Your task to perform on an android device: Go to Yahoo.com Image 0: 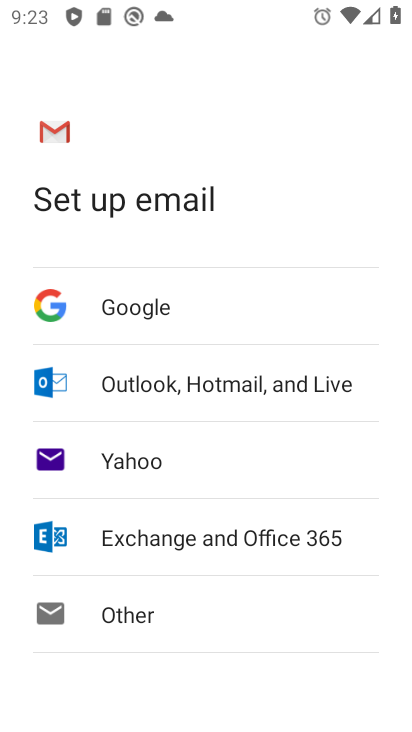
Step 0: press home button
Your task to perform on an android device: Go to Yahoo.com Image 1: 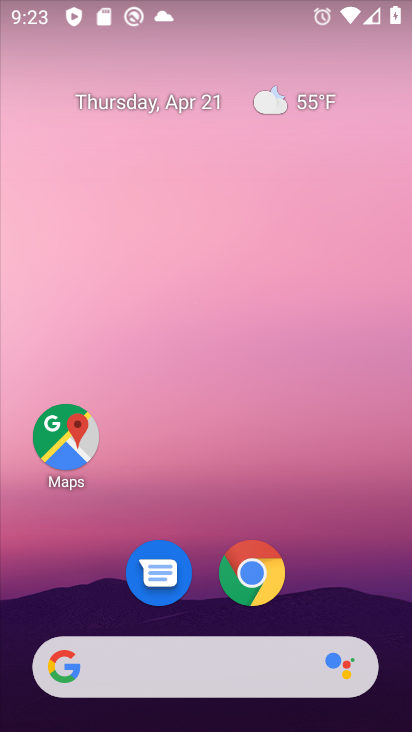
Step 1: click (267, 593)
Your task to perform on an android device: Go to Yahoo.com Image 2: 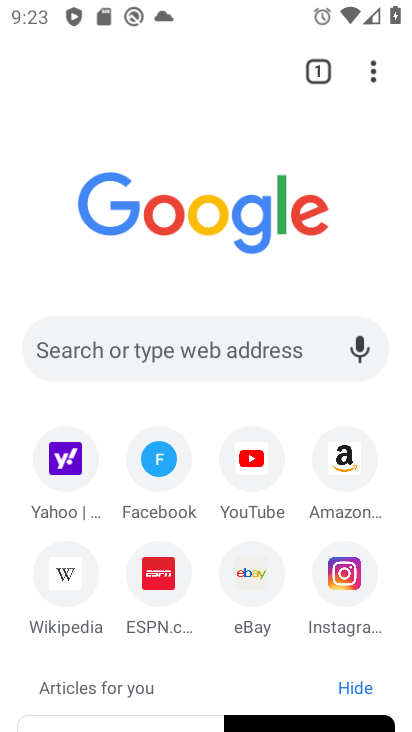
Step 2: click (76, 470)
Your task to perform on an android device: Go to Yahoo.com Image 3: 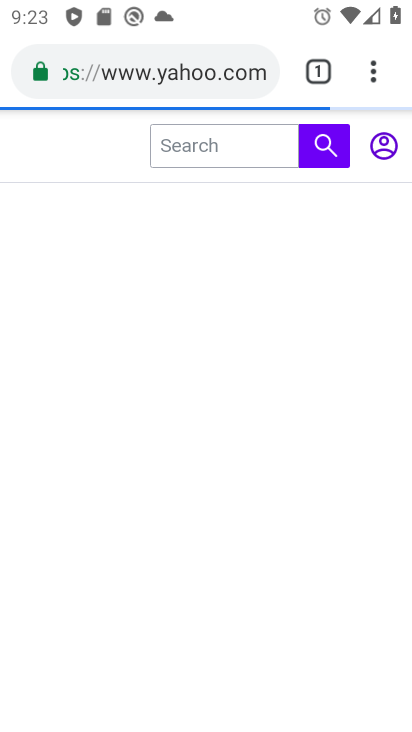
Step 3: task complete